Your task to perform on an android device: turn off notifications settings in the gmail app Image 0: 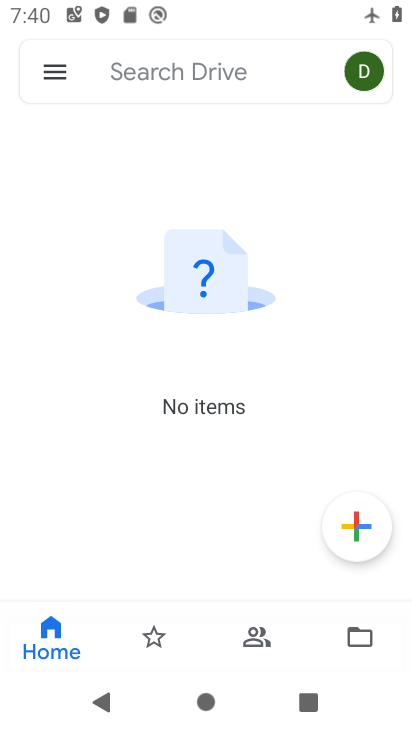
Step 0: press home button
Your task to perform on an android device: turn off notifications settings in the gmail app Image 1: 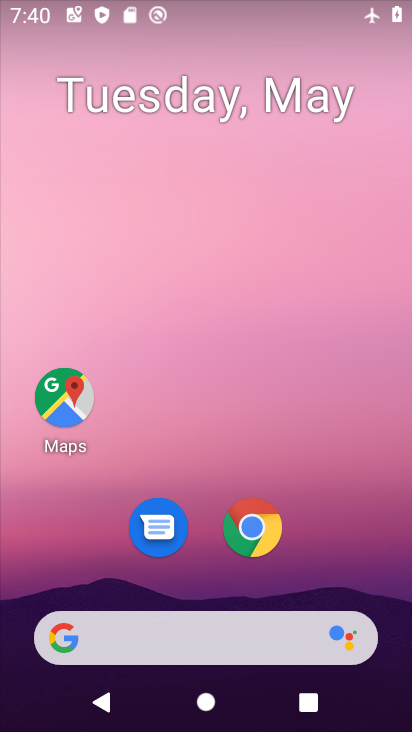
Step 1: drag from (320, 544) to (286, 194)
Your task to perform on an android device: turn off notifications settings in the gmail app Image 2: 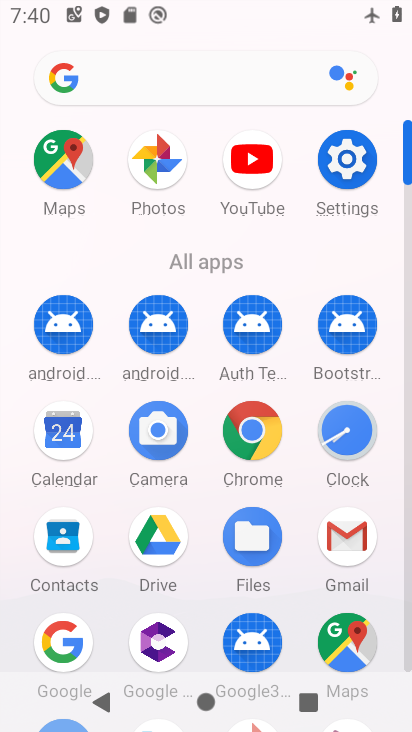
Step 2: click (344, 537)
Your task to perform on an android device: turn off notifications settings in the gmail app Image 3: 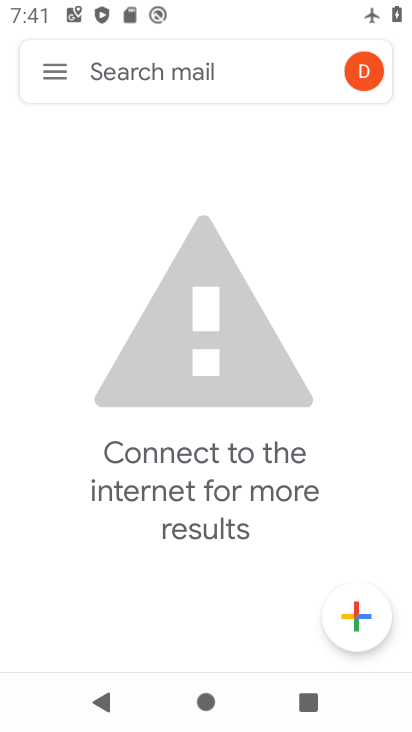
Step 3: click (59, 69)
Your task to perform on an android device: turn off notifications settings in the gmail app Image 4: 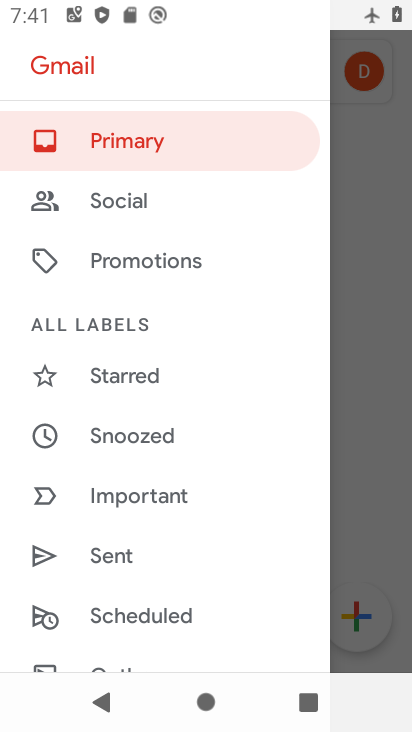
Step 4: drag from (131, 399) to (151, 307)
Your task to perform on an android device: turn off notifications settings in the gmail app Image 5: 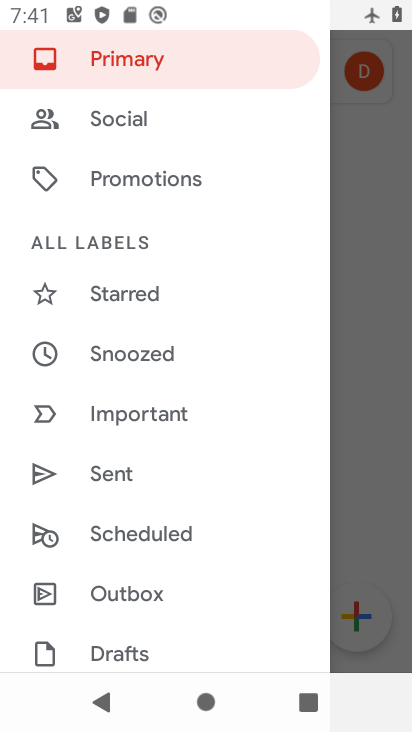
Step 5: drag from (127, 436) to (163, 357)
Your task to perform on an android device: turn off notifications settings in the gmail app Image 6: 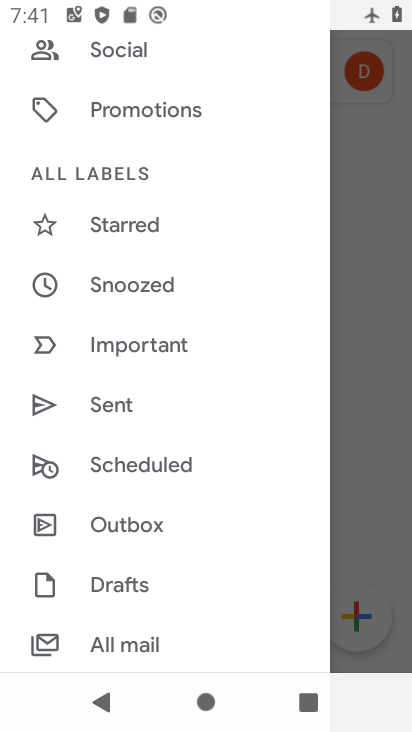
Step 6: drag from (109, 488) to (158, 405)
Your task to perform on an android device: turn off notifications settings in the gmail app Image 7: 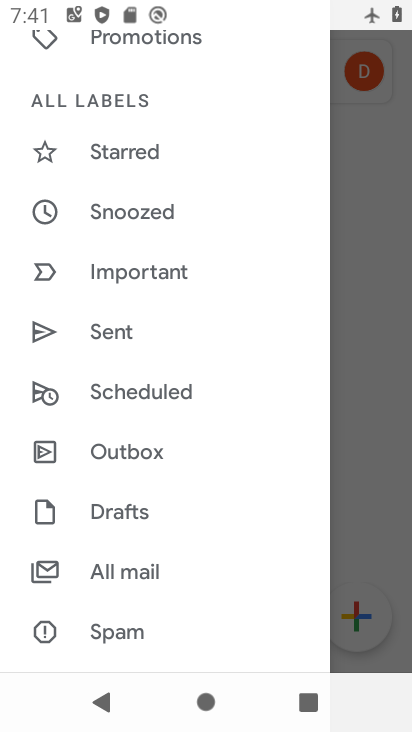
Step 7: drag from (112, 477) to (154, 396)
Your task to perform on an android device: turn off notifications settings in the gmail app Image 8: 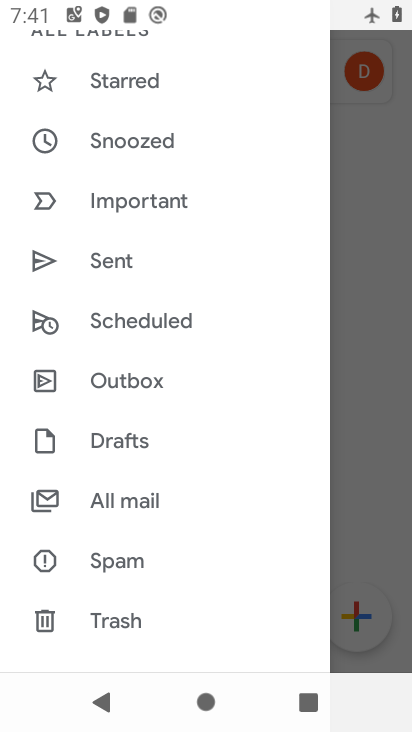
Step 8: drag from (121, 469) to (168, 392)
Your task to perform on an android device: turn off notifications settings in the gmail app Image 9: 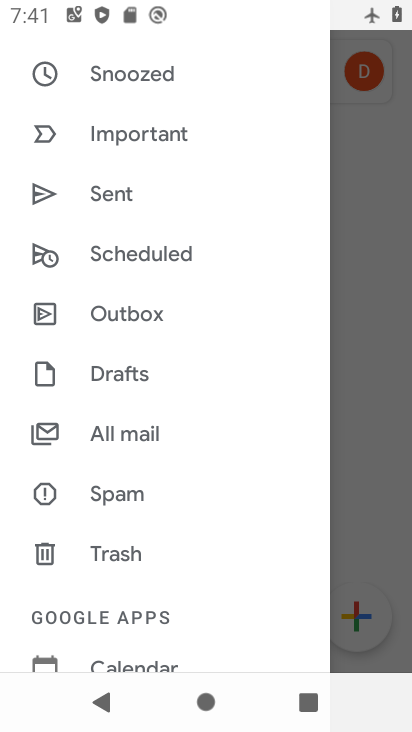
Step 9: drag from (109, 455) to (175, 367)
Your task to perform on an android device: turn off notifications settings in the gmail app Image 10: 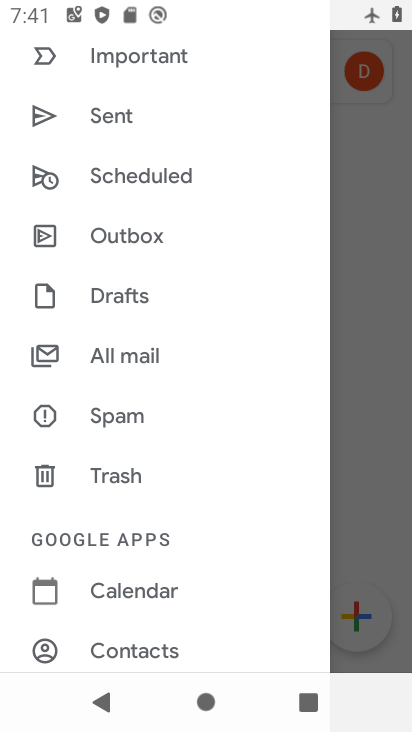
Step 10: drag from (115, 442) to (180, 362)
Your task to perform on an android device: turn off notifications settings in the gmail app Image 11: 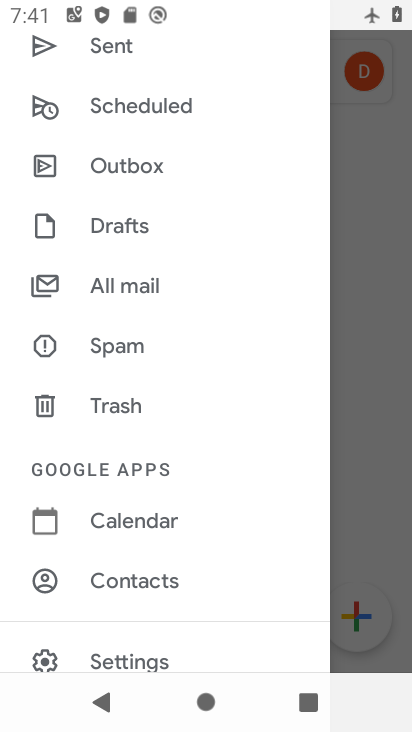
Step 11: drag from (110, 446) to (200, 346)
Your task to perform on an android device: turn off notifications settings in the gmail app Image 12: 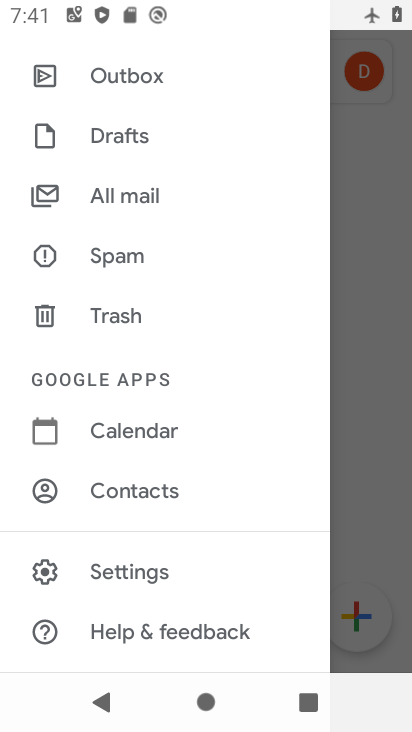
Step 12: click (138, 568)
Your task to perform on an android device: turn off notifications settings in the gmail app Image 13: 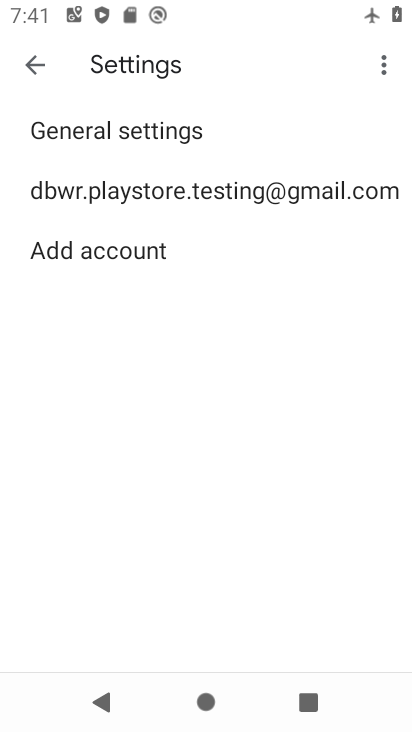
Step 13: click (239, 184)
Your task to perform on an android device: turn off notifications settings in the gmail app Image 14: 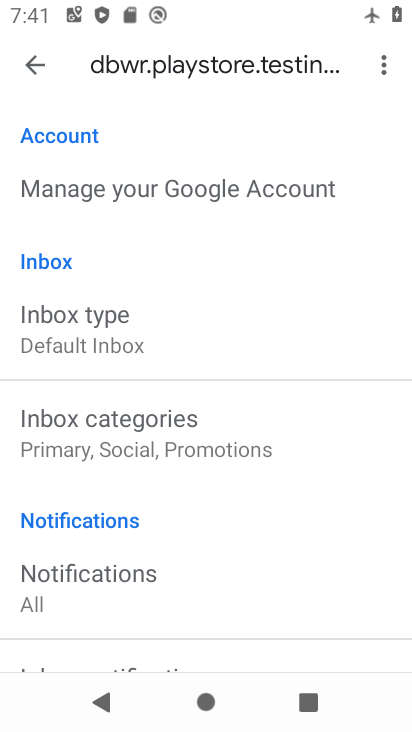
Step 14: drag from (122, 482) to (203, 378)
Your task to perform on an android device: turn off notifications settings in the gmail app Image 15: 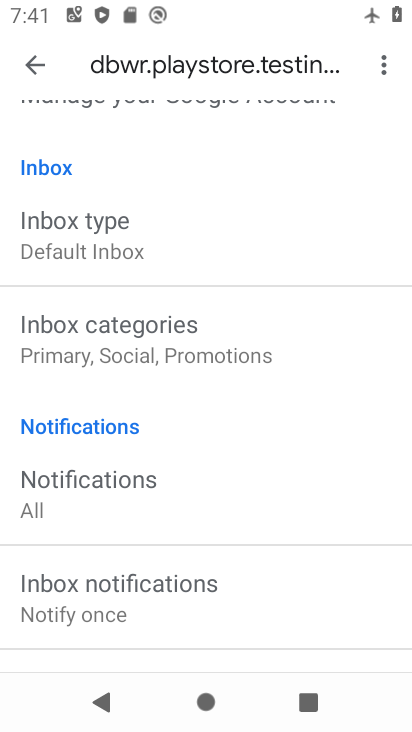
Step 15: drag from (151, 506) to (223, 416)
Your task to perform on an android device: turn off notifications settings in the gmail app Image 16: 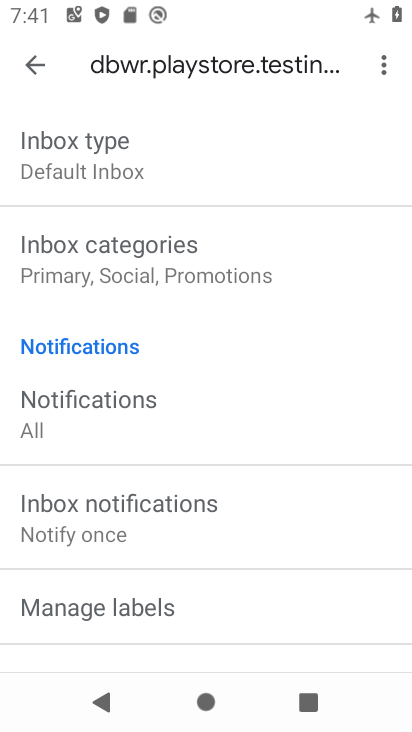
Step 16: drag from (172, 531) to (242, 409)
Your task to perform on an android device: turn off notifications settings in the gmail app Image 17: 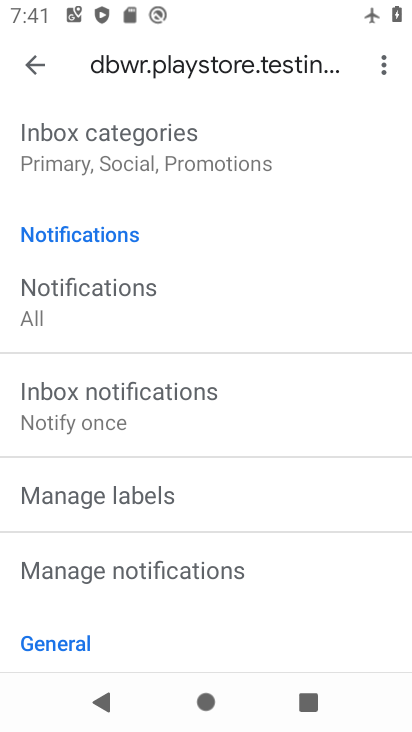
Step 17: click (177, 570)
Your task to perform on an android device: turn off notifications settings in the gmail app Image 18: 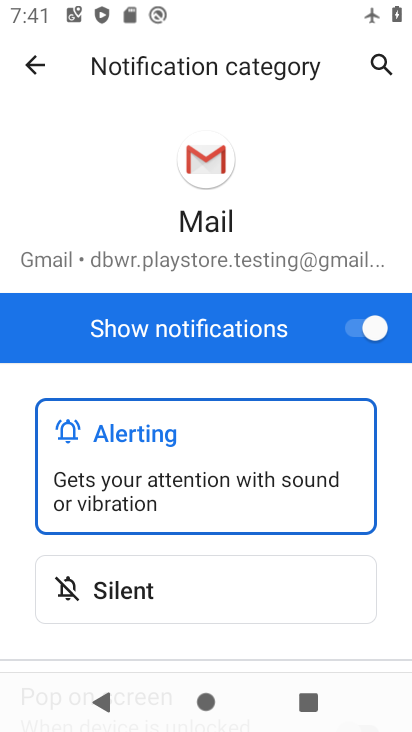
Step 18: click (351, 327)
Your task to perform on an android device: turn off notifications settings in the gmail app Image 19: 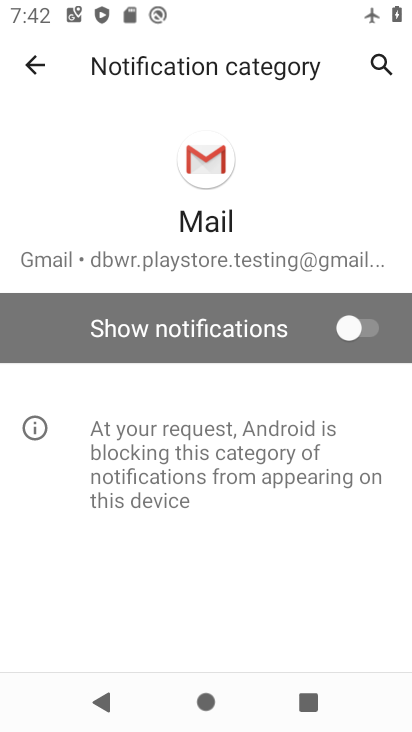
Step 19: task complete